Your task to perform on an android device: add a label to a message in the gmail app Image 0: 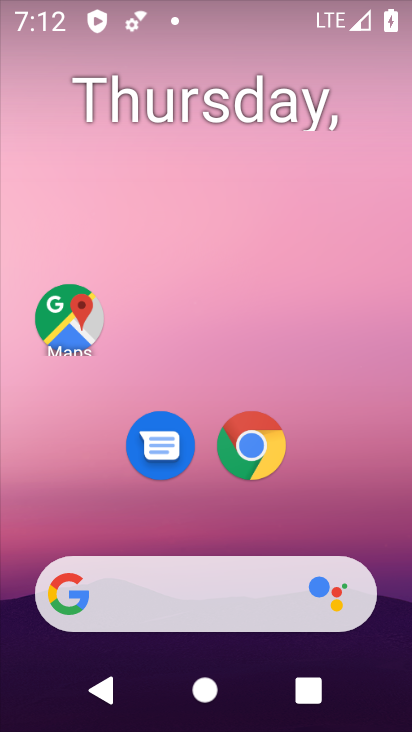
Step 0: click (297, 188)
Your task to perform on an android device: add a label to a message in the gmail app Image 1: 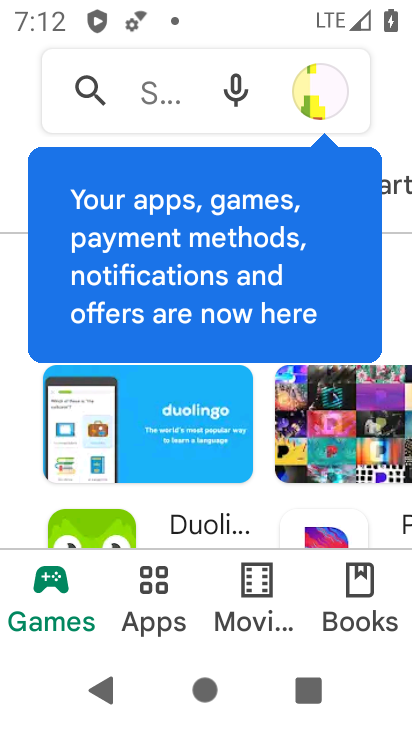
Step 1: press home button
Your task to perform on an android device: add a label to a message in the gmail app Image 2: 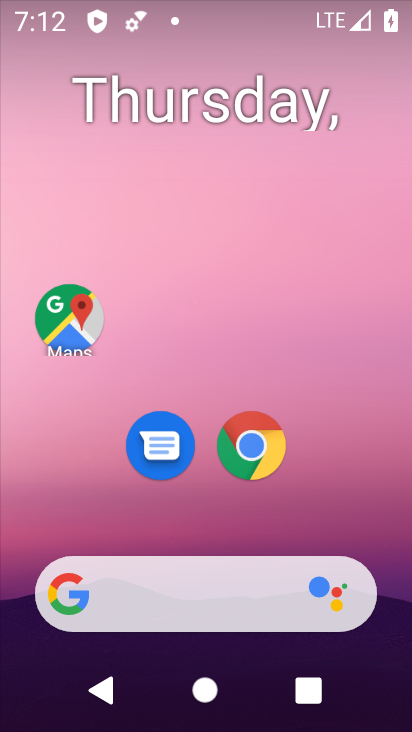
Step 2: drag from (258, 532) to (231, 172)
Your task to perform on an android device: add a label to a message in the gmail app Image 3: 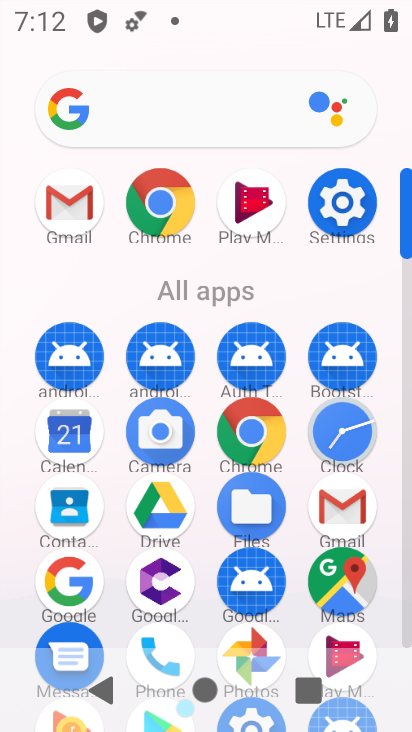
Step 3: click (46, 206)
Your task to perform on an android device: add a label to a message in the gmail app Image 4: 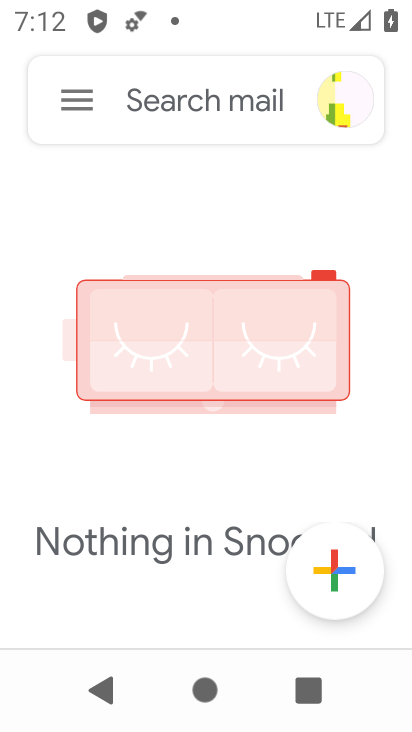
Step 4: click (75, 100)
Your task to perform on an android device: add a label to a message in the gmail app Image 5: 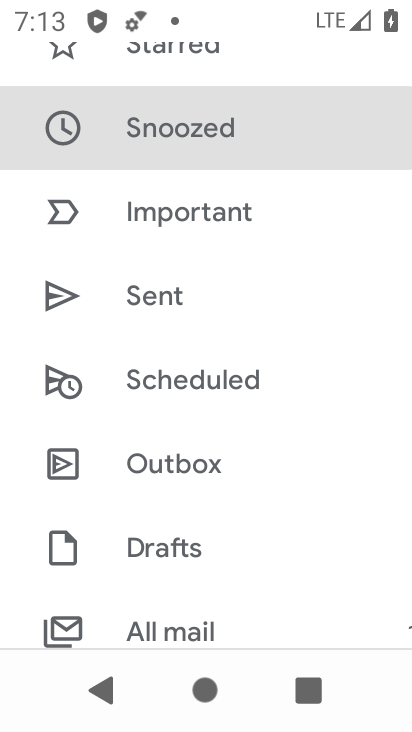
Step 5: drag from (189, 562) to (207, 187)
Your task to perform on an android device: add a label to a message in the gmail app Image 6: 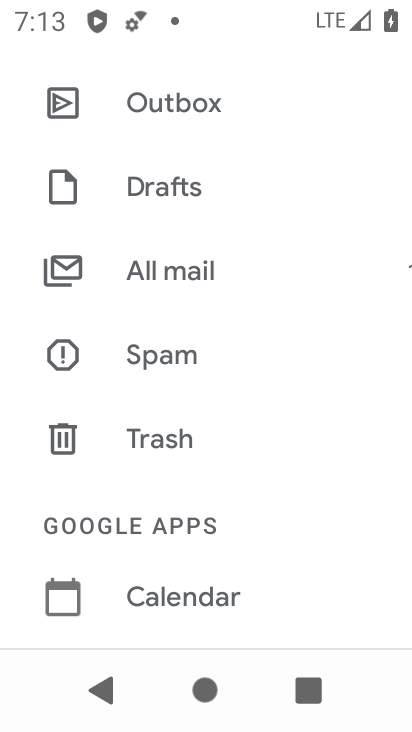
Step 6: click (153, 253)
Your task to perform on an android device: add a label to a message in the gmail app Image 7: 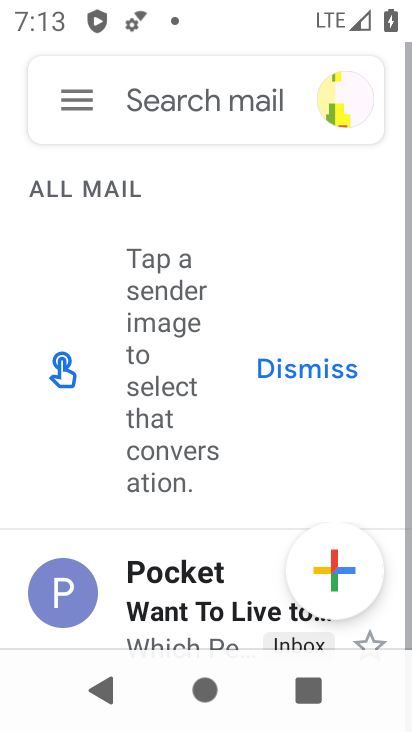
Step 7: drag from (208, 414) to (263, 161)
Your task to perform on an android device: add a label to a message in the gmail app Image 8: 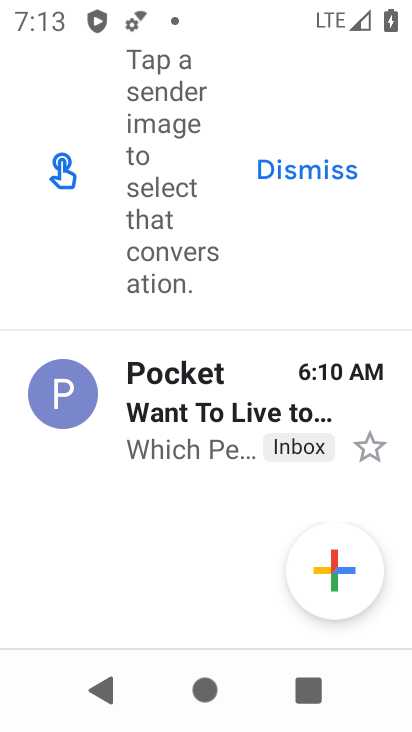
Step 8: click (313, 444)
Your task to perform on an android device: add a label to a message in the gmail app Image 9: 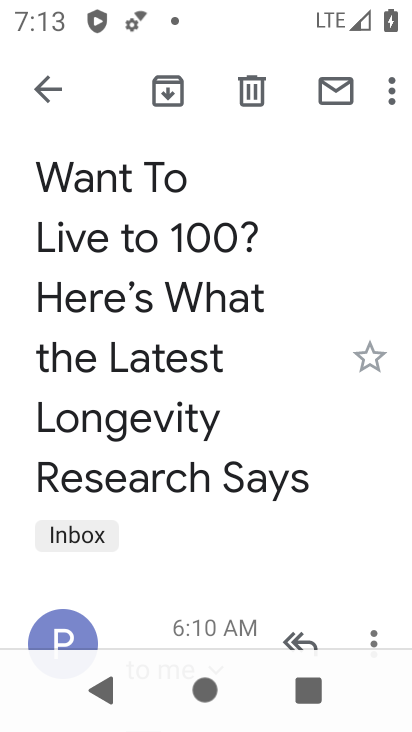
Step 9: drag from (215, 587) to (258, 271)
Your task to perform on an android device: add a label to a message in the gmail app Image 10: 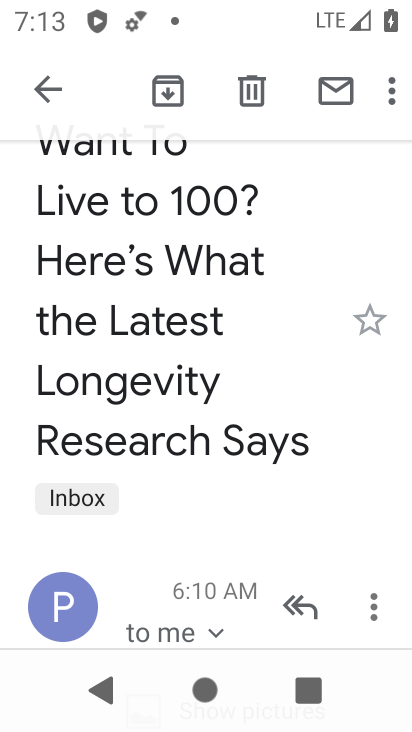
Step 10: drag from (195, 482) to (224, 196)
Your task to perform on an android device: add a label to a message in the gmail app Image 11: 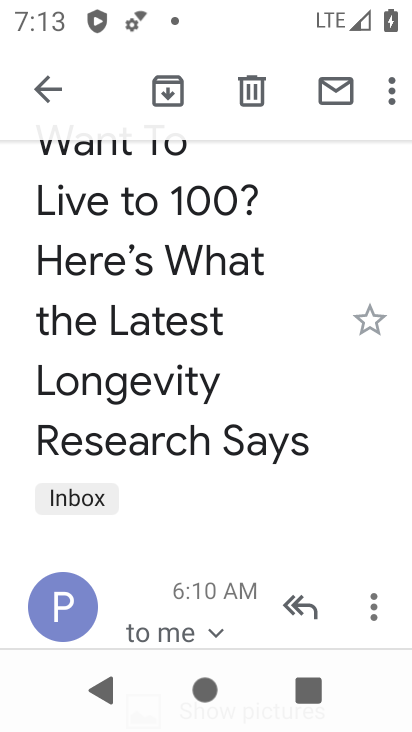
Step 11: click (85, 498)
Your task to perform on an android device: add a label to a message in the gmail app Image 12: 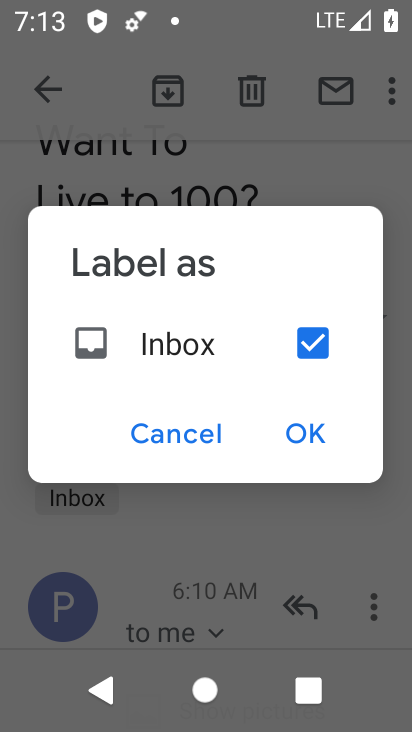
Step 12: task complete